Your task to perform on an android device: Open Google Maps and go to "Timeline" Image 0: 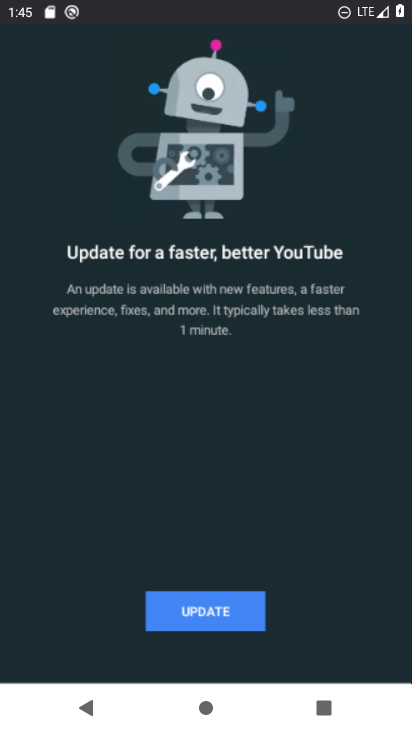
Step 0: drag from (227, 607) to (219, 217)
Your task to perform on an android device: Open Google Maps and go to "Timeline" Image 1: 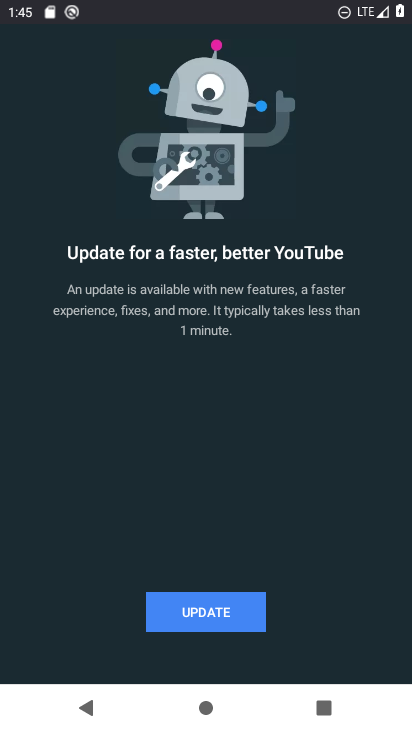
Step 1: press home button
Your task to perform on an android device: Open Google Maps and go to "Timeline" Image 2: 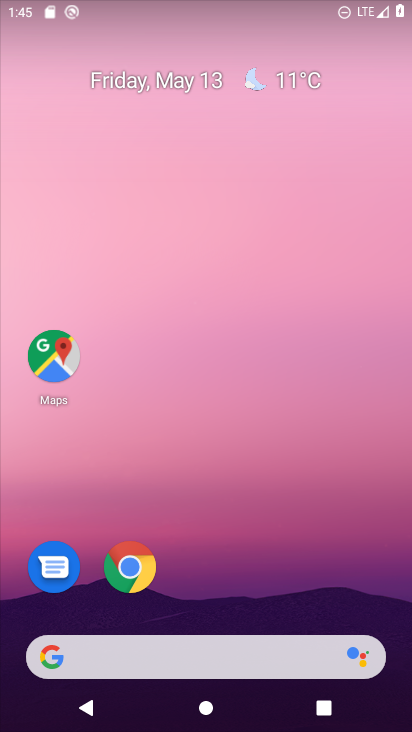
Step 2: drag from (208, 611) to (196, 173)
Your task to perform on an android device: Open Google Maps and go to "Timeline" Image 3: 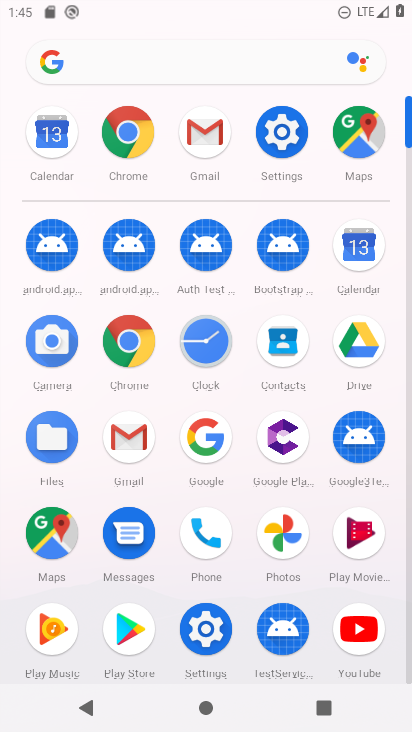
Step 3: click (54, 528)
Your task to perform on an android device: Open Google Maps and go to "Timeline" Image 4: 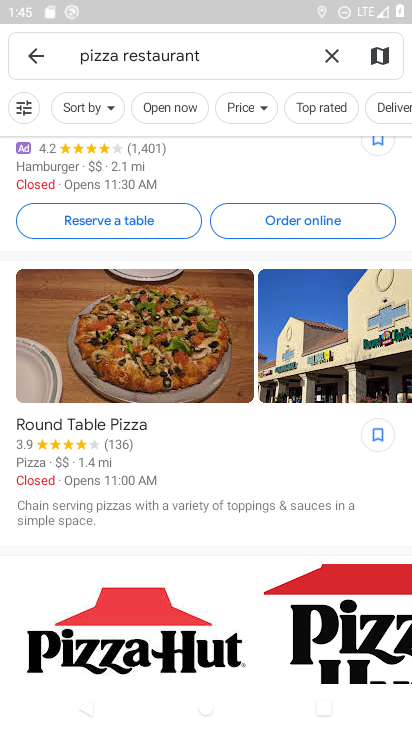
Step 4: click (40, 55)
Your task to perform on an android device: Open Google Maps and go to "Timeline" Image 5: 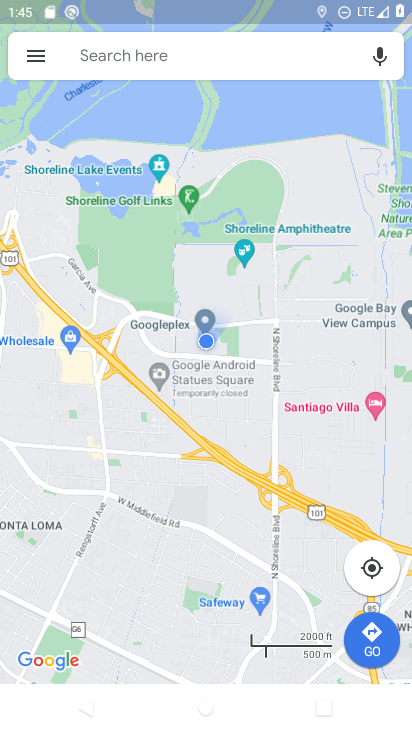
Step 5: click (31, 55)
Your task to perform on an android device: Open Google Maps and go to "Timeline" Image 6: 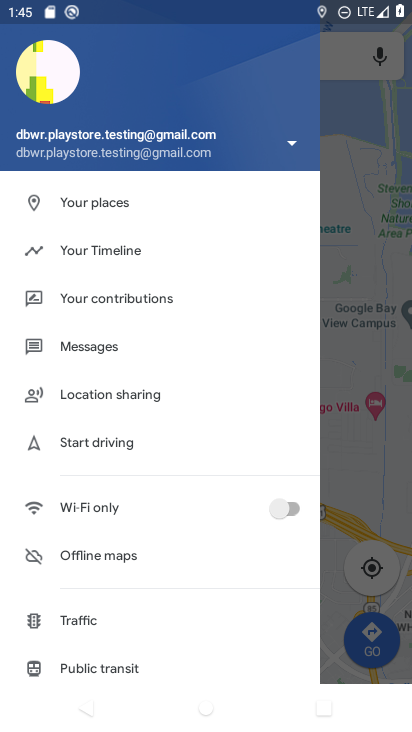
Step 6: click (141, 248)
Your task to perform on an android device: Open Google Maps and go to "Timeline" Image 7: 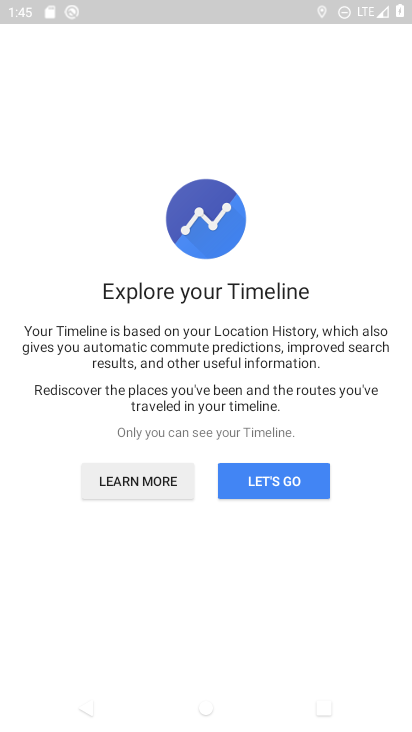
Step 7: click (266, 483)
Your task to perform on an android device: Open Google Maps and go to "Timeline" Image 8: 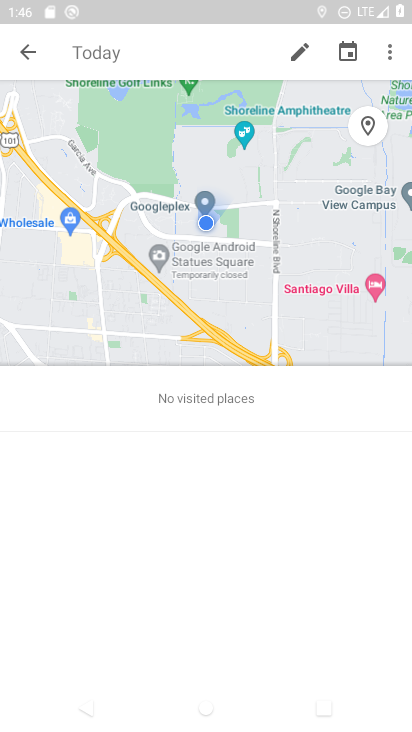
Step 8: task complete